Your task to perform on an android device: Open ESPN.com Image 0: 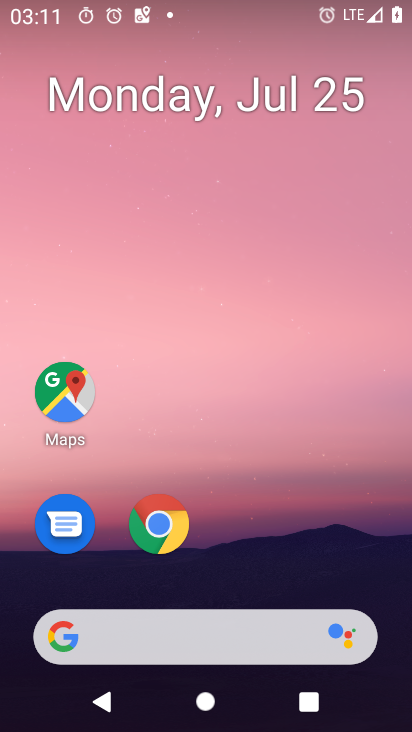
Step 0: press home button
Your task to perform on an android device: Open ESPN.com Image 1: 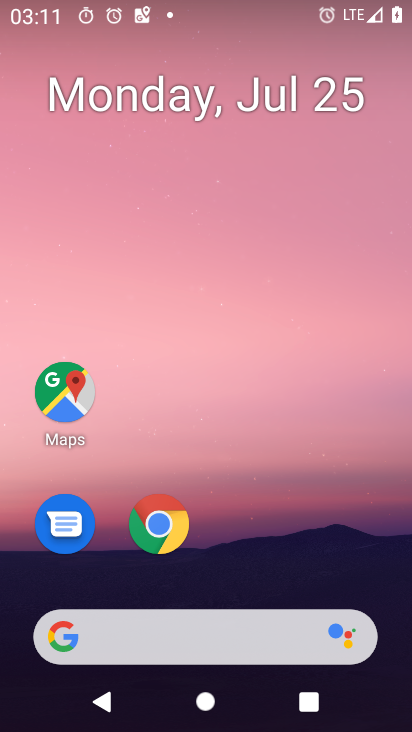
Step 1: click (56, 633)
Your task to perform on an android device: Open ESPN.com Image 2: 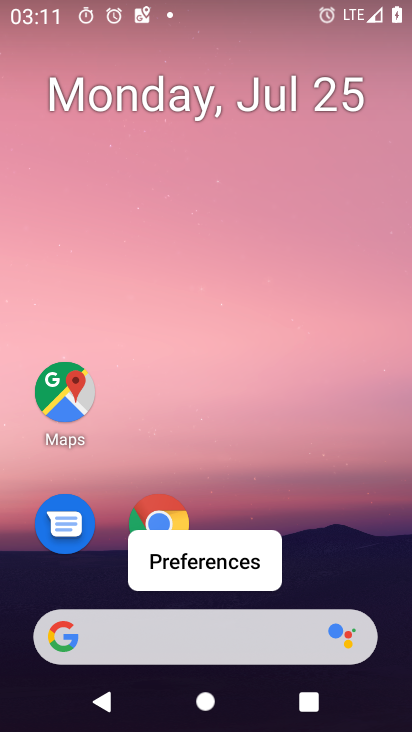
Step 2: click (66, 646)
Your task to perform on an android device: Open ESPN.com Image 3: 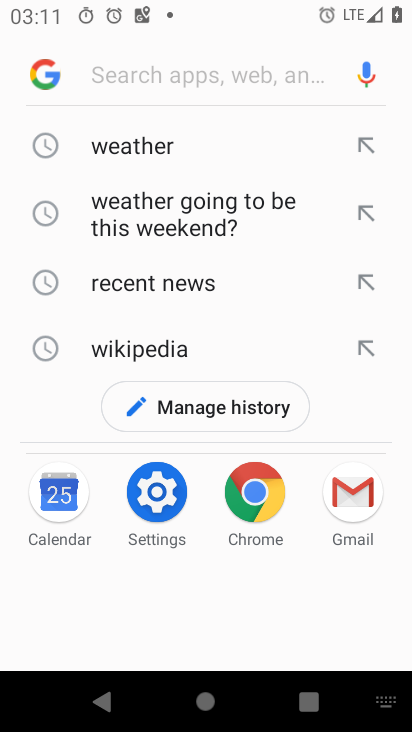
Step 3: type " ESPN.com"
Your task to perform on an android device: Open ESPN.com Image 4: 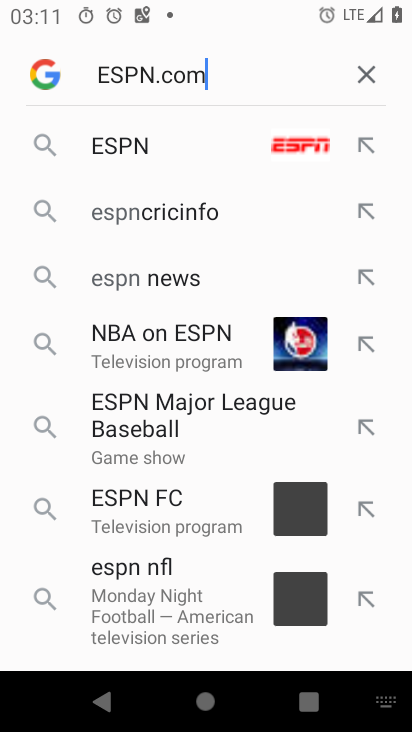
Step 4: press enter
Your task to perform on an android device: Open ESPN.com Image 5: 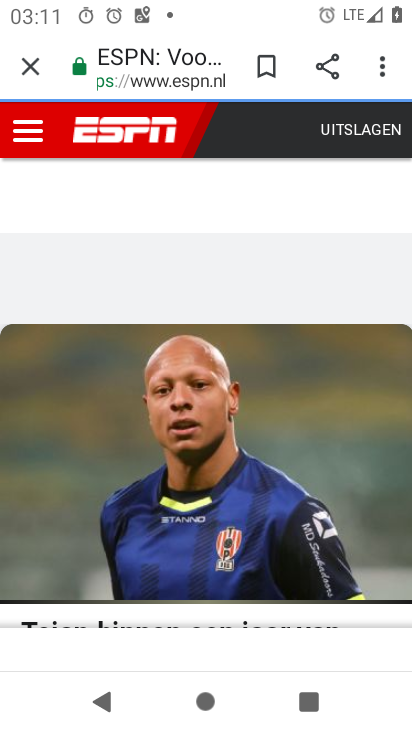
Step 5: task complete